Your task to perform on an android device: Go to Yahoo.com Image 0: 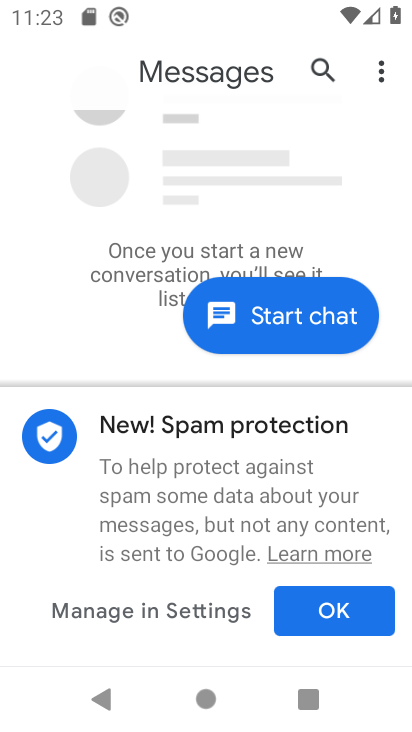
Step 0: press back button
Your task to perform on an android device: Go to Yahoo.com Image 1: 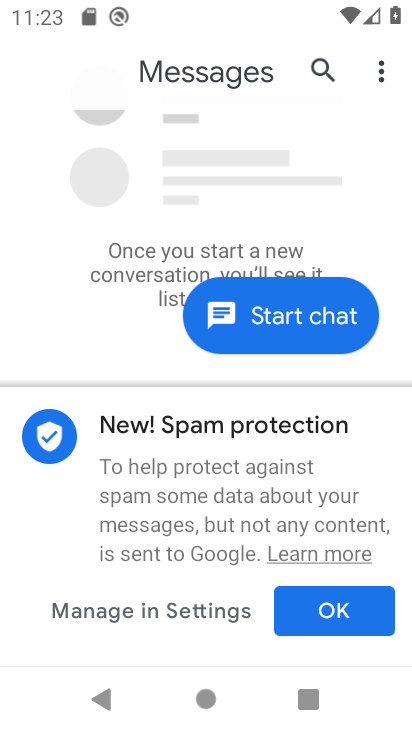
Step 1: press back button
Your task to perform on an android device: Go to Yahoo.com Image 2: 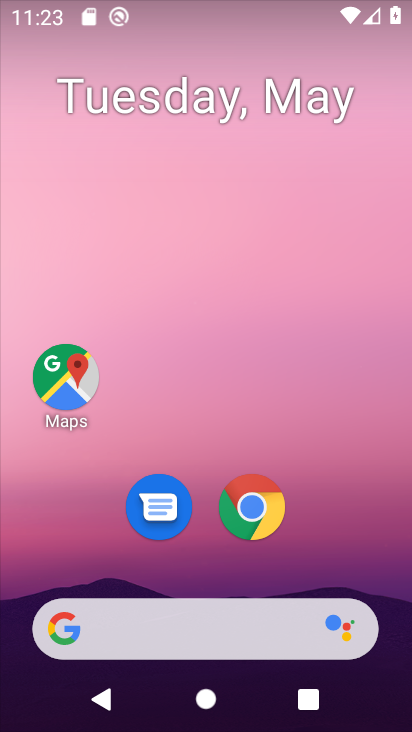
Step 2: drag from (248, 674) to (168, 62)
Your task to perform on an android device: Go to Yahoo.com Image 3: 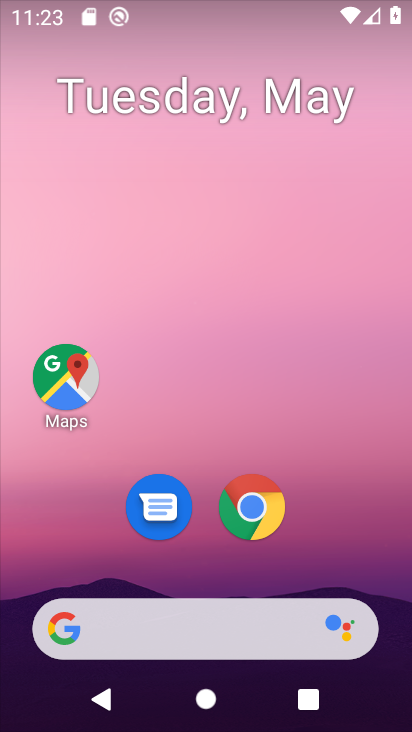
Step 3: drag from (226, 694) to (179, 239)
Your task to perform on an android device: Go to Yahoo.com Image 4: 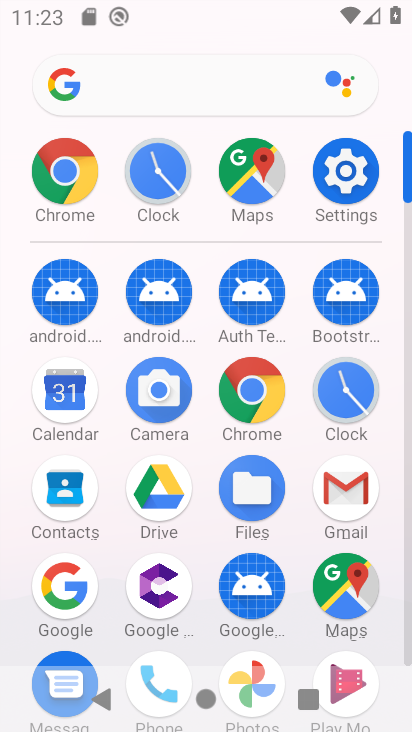
Step 4: drag from (254, 648) to (246, 202)
Your task to perform on an android device: Go to Yahoo.com Image 5: 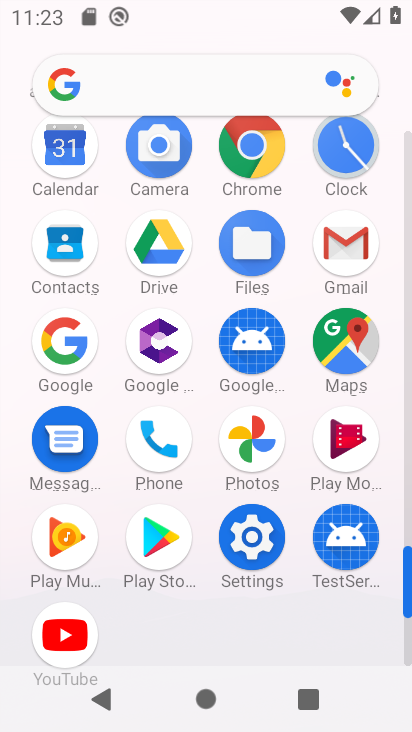
Step 5: click (254, 157)
Your task to perform on an android device: Go to Yahoo.com Image 6: 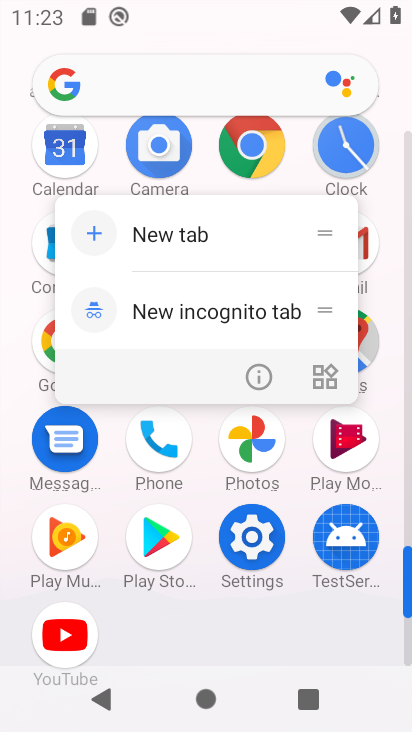
Step 6: click (238, 156)
Your task to perform on an android device: Go to Yahoo.com Image 7: 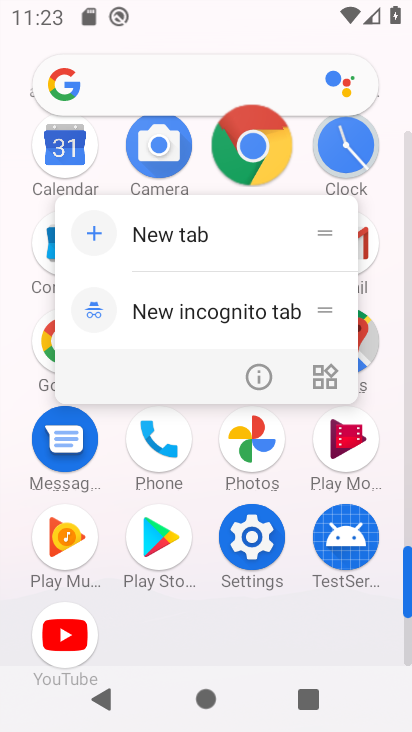
Step 7: click (244, 151)
Your task to perform on an android device: Go to Yahoo.com Image 8: 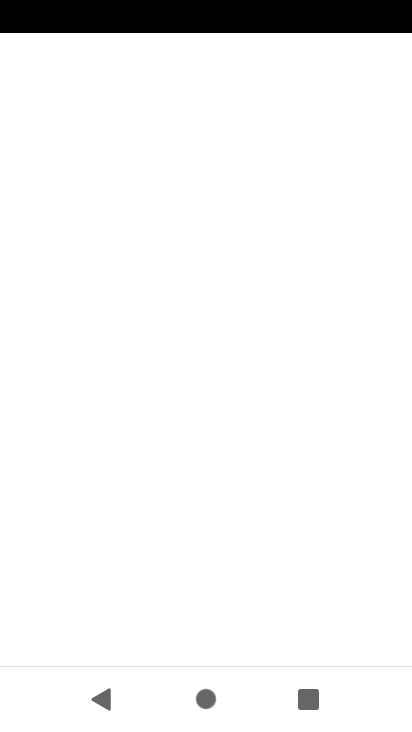
Step 8: click (243, 150)
Your task to perform on an android device: Go to Yahoo.com Image 9: 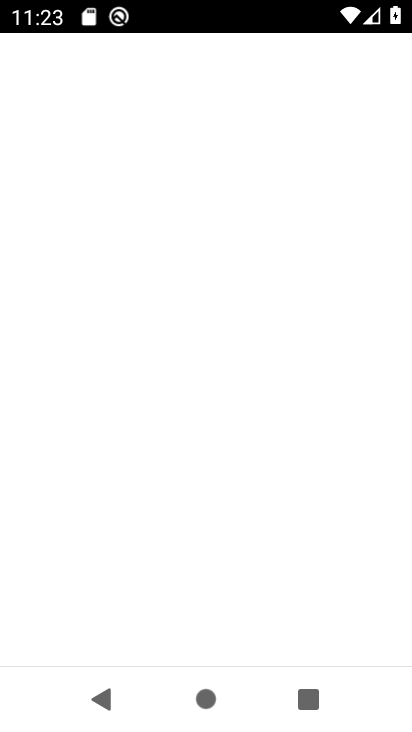
Step 9: click (242, 149)
Your task to perform on an android device: Go to Yahoo.com Image 10: 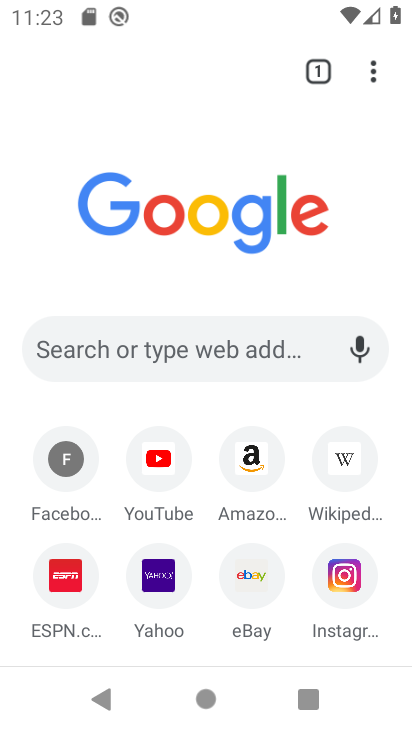
Step 10: click (149, 569)
Your task to perform on an android device: Go to Yahoo.com Image 11: 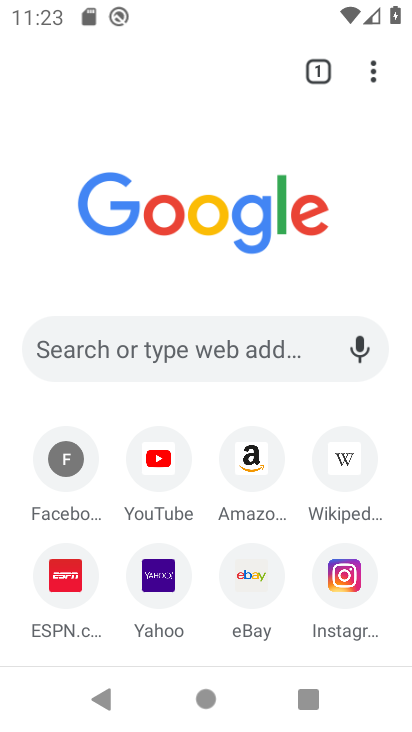
Step 11: click (160, 569)
Your task to perform on an android device: Go to Yahoo.com Image 12: 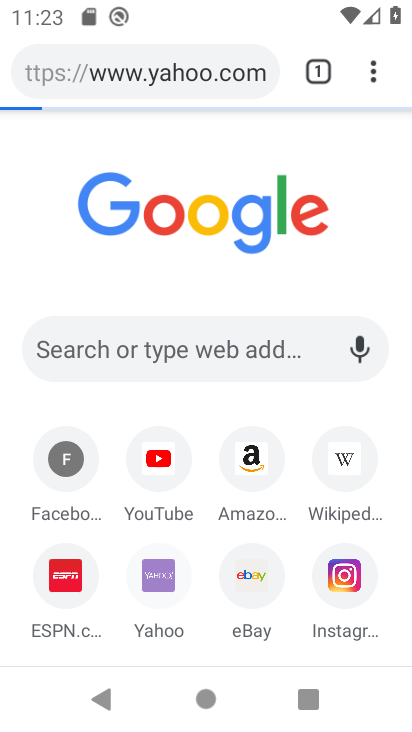
Step 12: click (164, 574)
Your task to perform on an android device: Go to Yahoo.com Image 13: 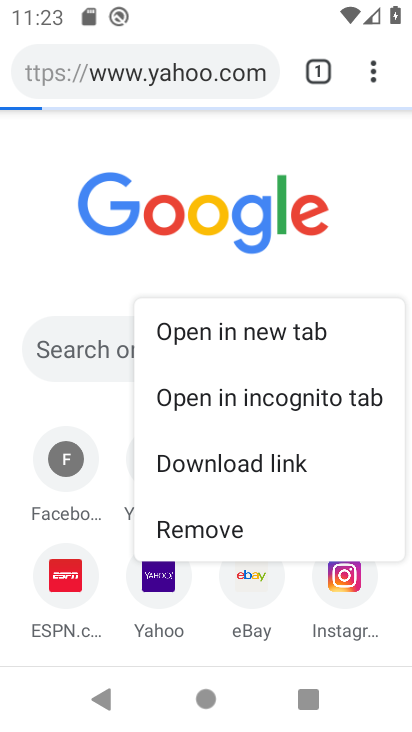
Step 13: click (154, 568)
Your task to perform on an android device: Go to Yahoo.com Image 14: 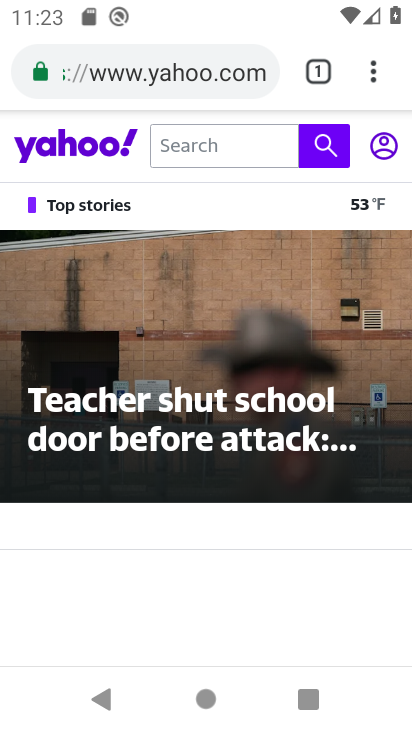
Step 14: task complete